Your task to perform on an android device: change text size in settings app Image 0: 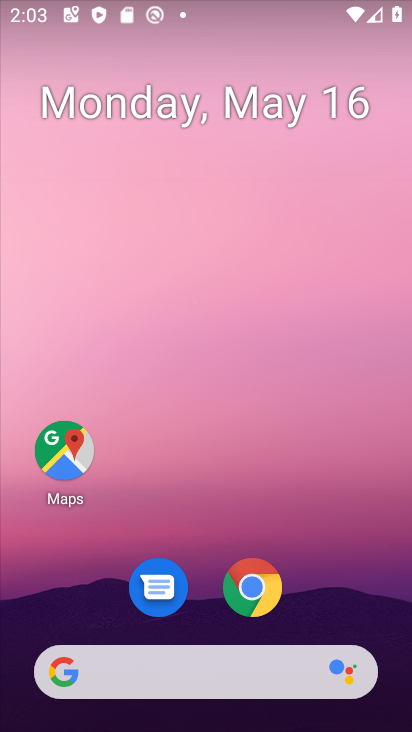
Step 0: drag from (387, 695) to (162, 203)
Your task to perform on an android device: change text size in settings app Image 1: 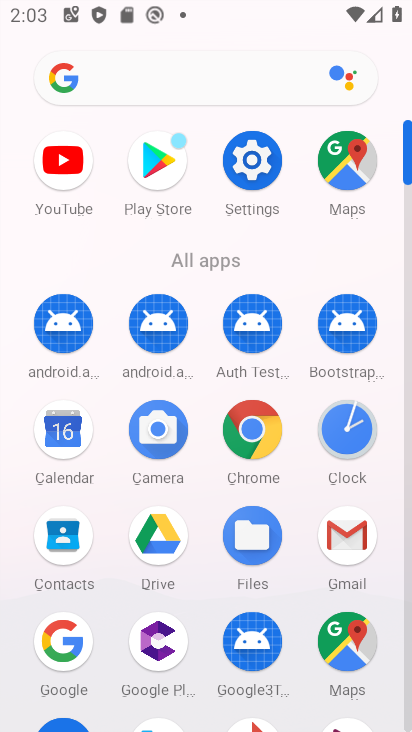
Step 1: click (264, 166)
Your task to perform on an android device: change text size in settings app Image 2: 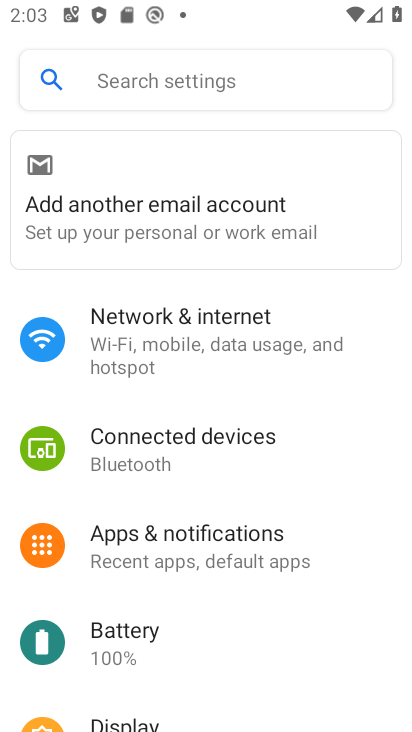
Step 2: drag from (205, 607) to (128, 265)
Your task to perform on an android device: change text size in settings app Image 3: 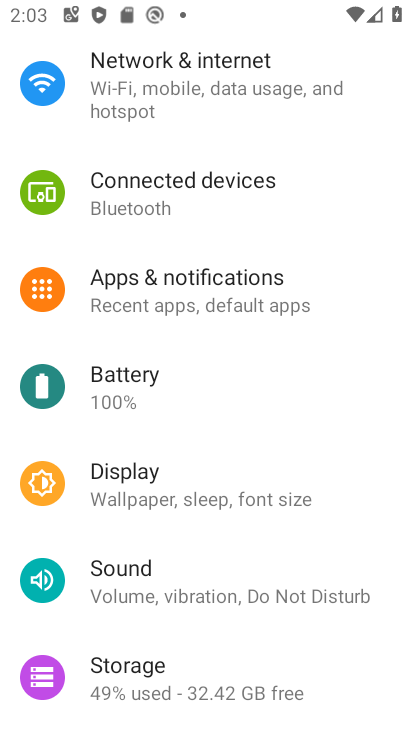
Step 3: click (164, 496)
Your task to perform on an android device: change text size in settings app Image 4: 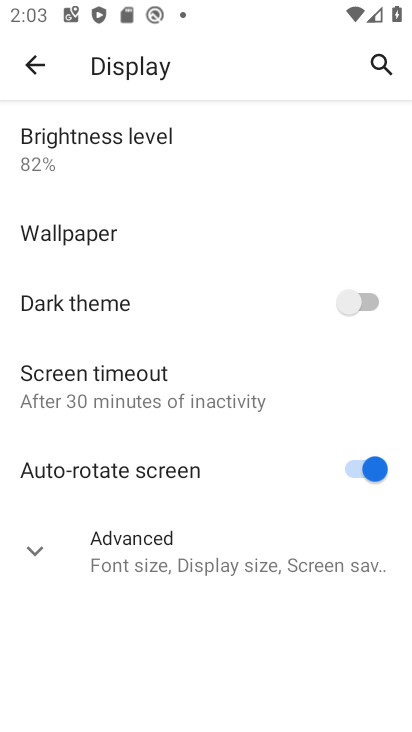
Step 4: click (182, 551)
Your task to perform on an android device: change text size in settings app Image 5: 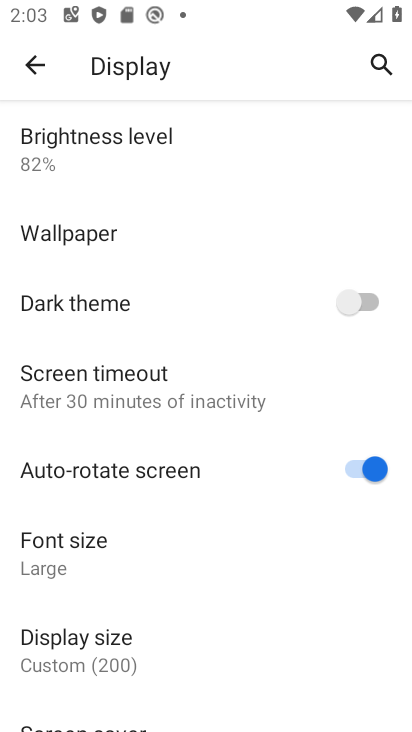
Step 5: click (39, 554)
Your task to perform on an android device: change text size in settings app Image 6: 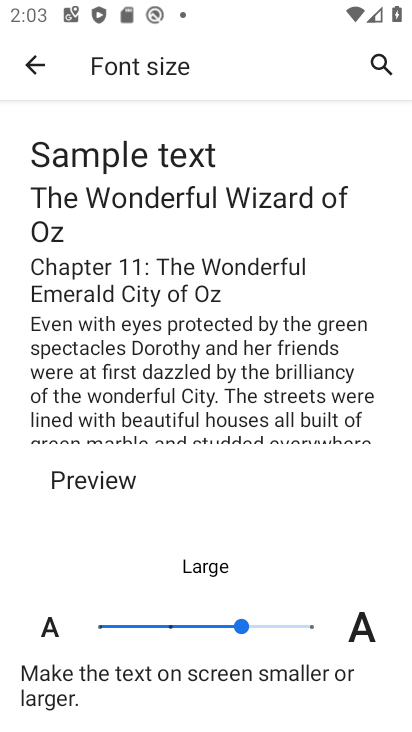
Step 6: click (174, 622)
Your task to perform on an android device: change text size in settings app Image 7: 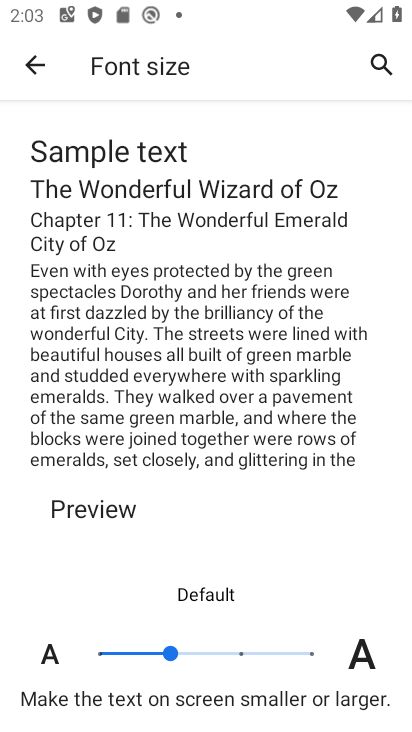
Step 7: task complete